Your task to perform on an android device: Open calendar and show me the first week of next month Image 0: 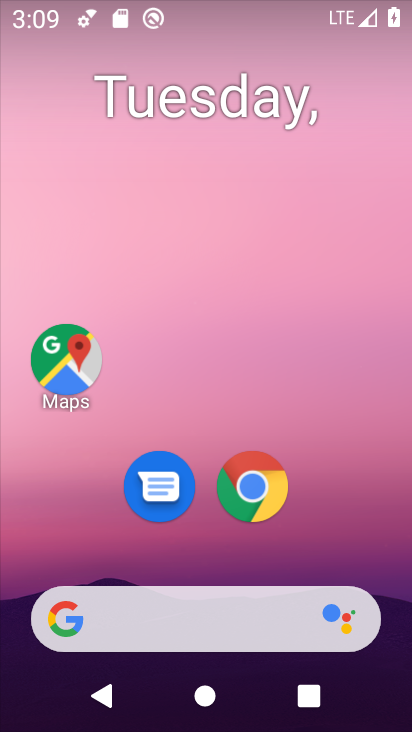
Step 0: press home button
Your task to perform on an android device: Open calendar and show me the first week of next month Image 1: 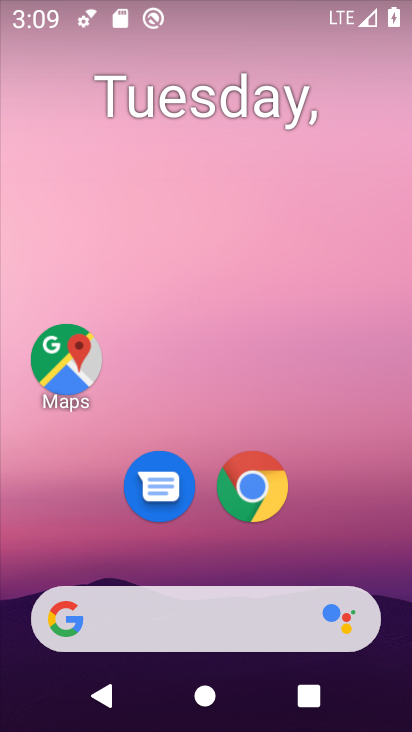
Step 1: drag from (207, 550) to (230, 29)
Your task to perform on an android device: Open calendar and show me the first week of next month Image 2: 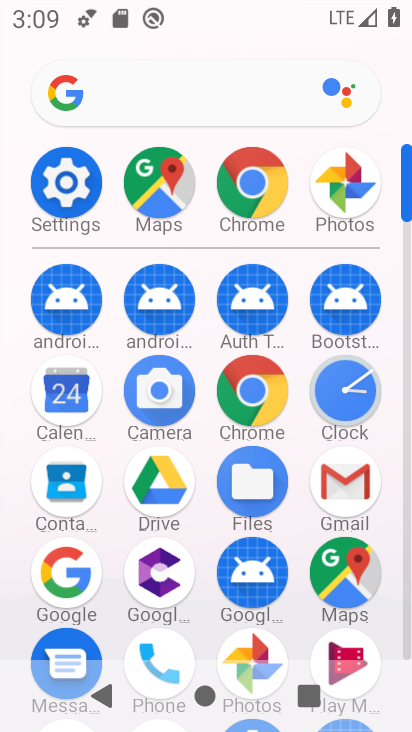
Step 2: click (66, 396)
Your task to perform on an android device: Open calendar and show me the first week of next month Image 3: 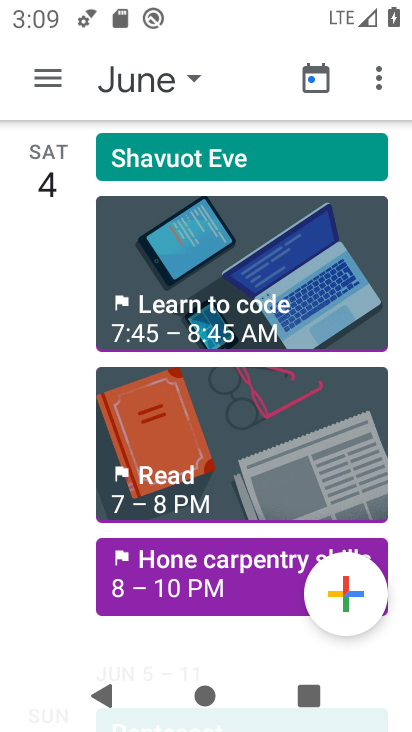
Step 3: click (48, 79)
Your task to perform on an android device: Open calendar and show me the first week of next month Image 4: 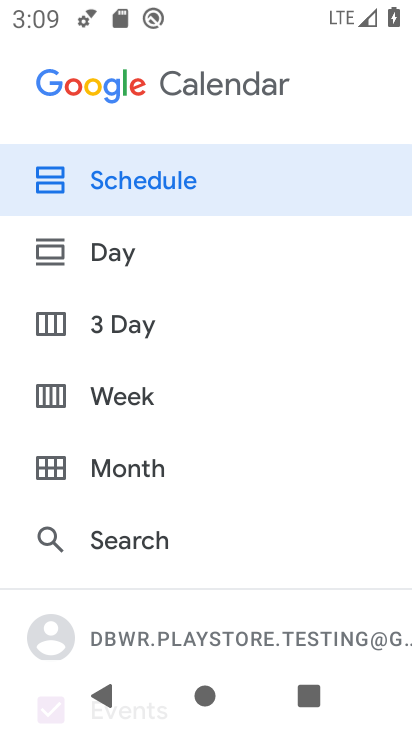
Step 4: click (83, 395)
Your task to perform on an android device: Open calendar and show me the first week of next month Image 5: 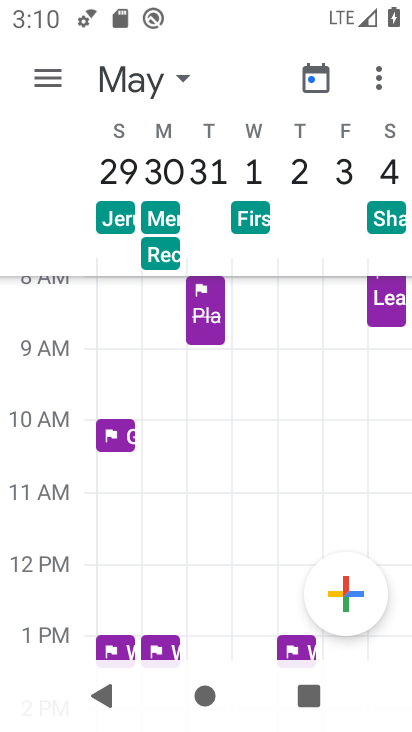
Step 5: click (111, 168)
Your task to perform on an android device: Open calendar and show me the first week of next month Image 6: 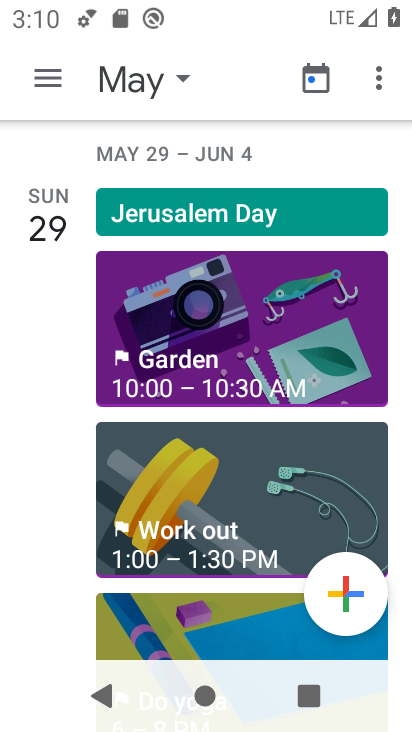
Step 6: task complete